Your task to perform on an android device: read, delete, or share a saved page in the chrome app Image 0: 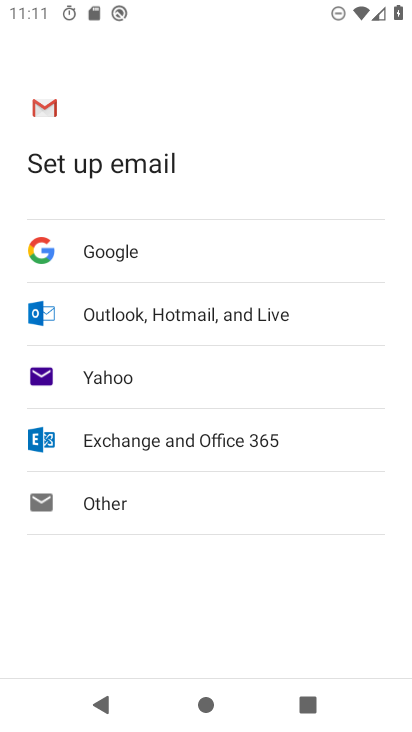
Step 0: press home button
Your task to perform on an android device: read, delete, or share a saved page in the chrome app Image 1: 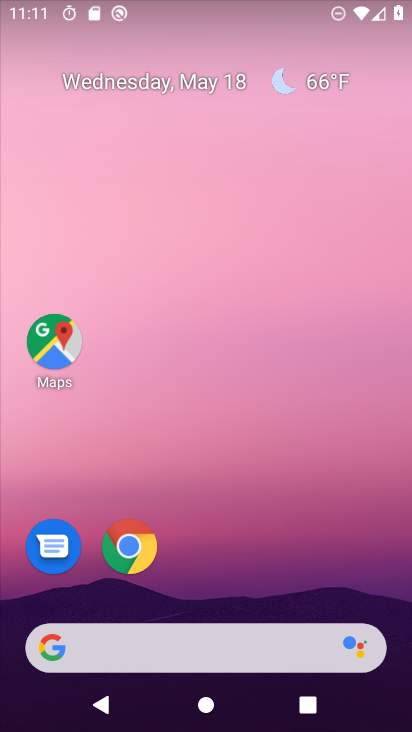
Step 1: click (130, 546)
Your task to perform on an android device: read, delete, or share a saved page in the chrome app Image 2: 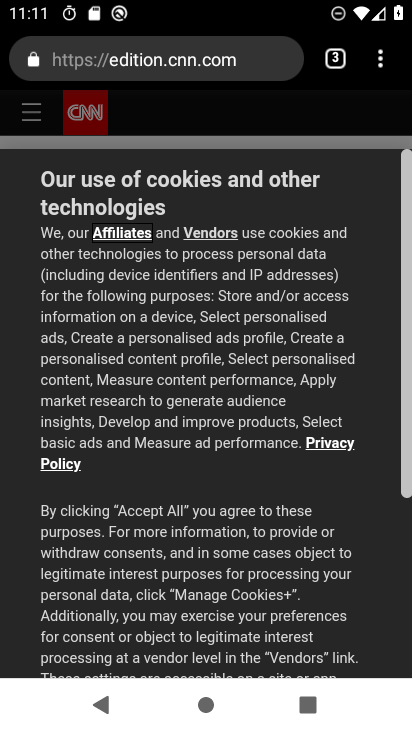
Step 2: click (395, 62)
Your task to perform on an android device: read, delete, or share a saved page in the chrome app Image 3: 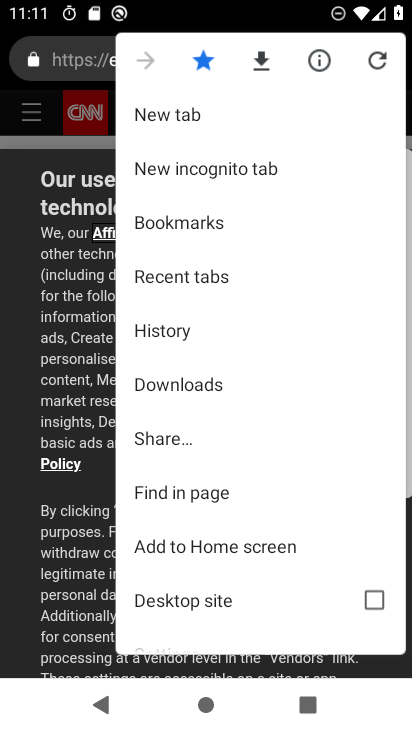
Step 3: drag from (223, 554) to (259, 286)
Your task to perform on an android device: read, delete, or share a saved page in the chrome app Image 4: 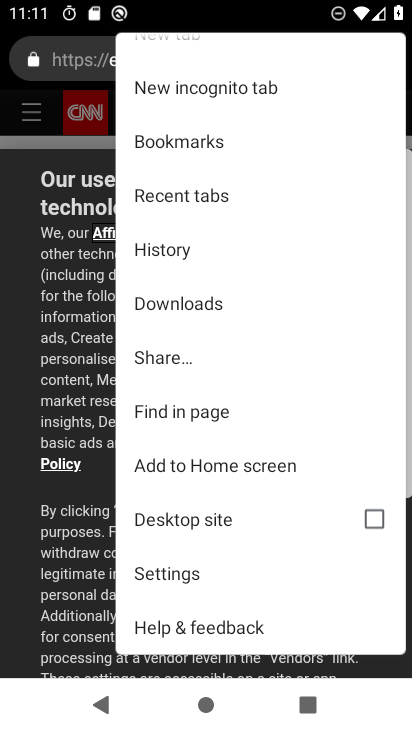
Step 4: click (172, 314)
Your task to perform on an android device: read, delete, or share a saved page in the chrome app Image 5: 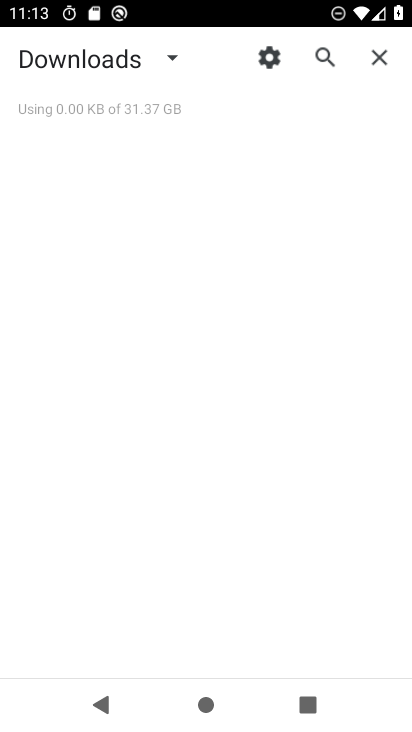
Step 5: task complete